Your task to perform on an android device: snooze an email in the gmail app Image 0: 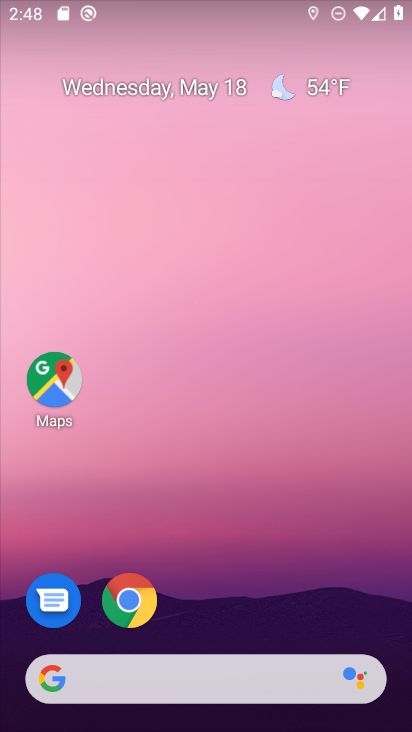
Step 0: drag from (212, 582) to (255, 46)
Your task to perform on an android device: snooze an email in the gmail app Image 1: 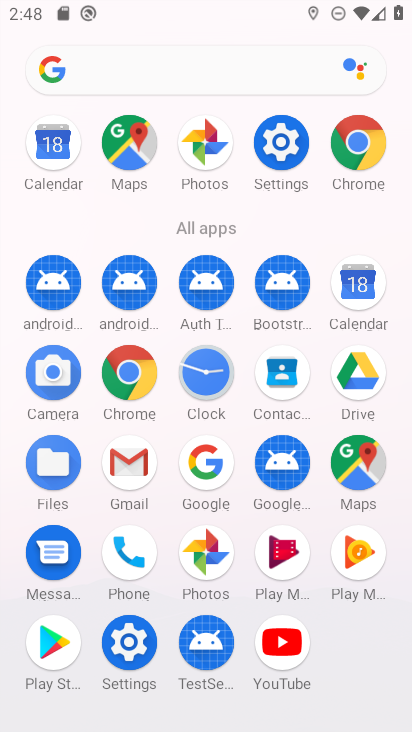
Step 1: click (140, 473)
Your task to perform on an android device: snooze an email in the gmail app Image 2: 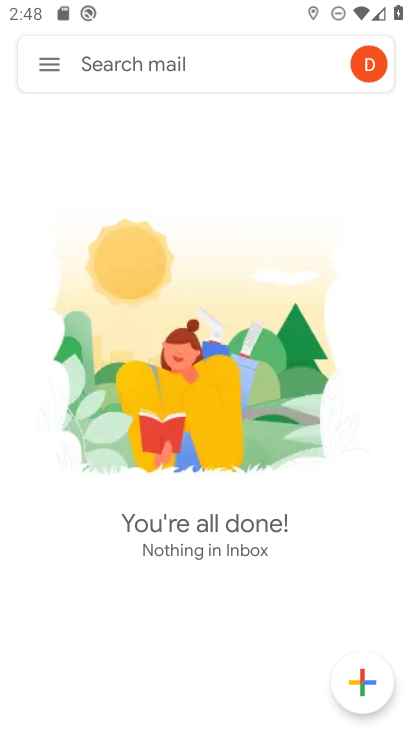
Step 2: click (55, 66)
Your task to perform on an android device: snooze an email in the gmail app Image 3: 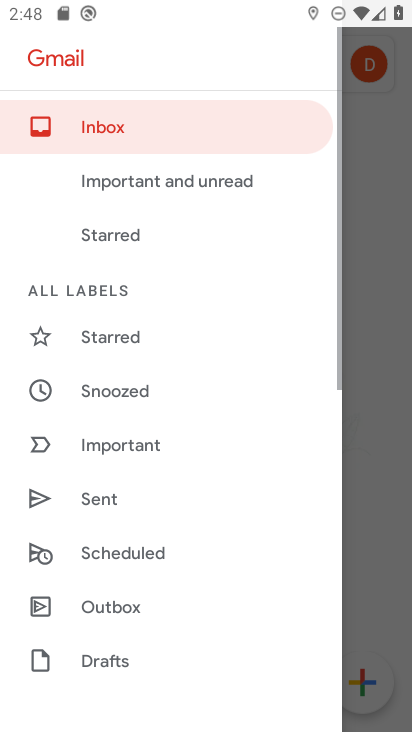
Step 3: drag from (118, 583) to (167, 277)
Your task to perform on an android device: snooze an email in the gmail app Image 4: 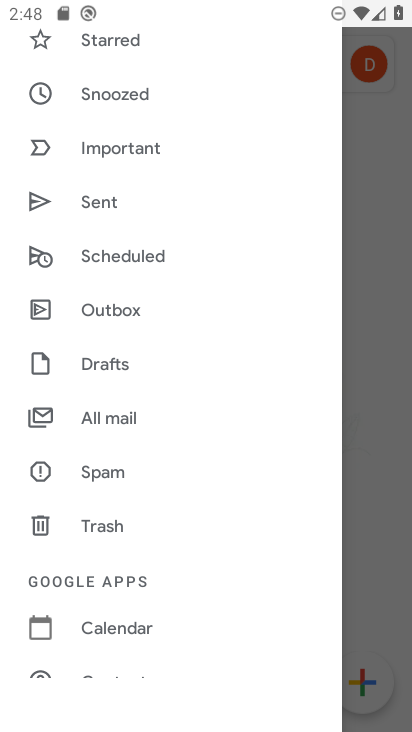
Step 4: click (107, 425)
Your task to perform on an android device: snooze an email in the gmail app Image 5: 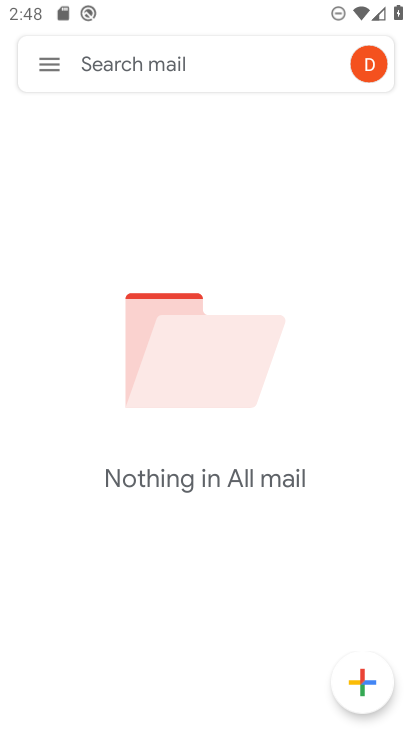
Step 5: task complete